Your task to perform on an android device: turn off location Image 0: 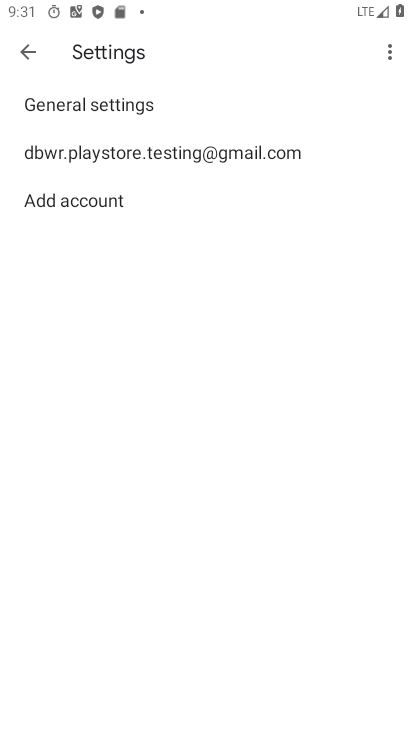
Step 0: press back button
Your task to perform on an android device: turn off location Image 1: 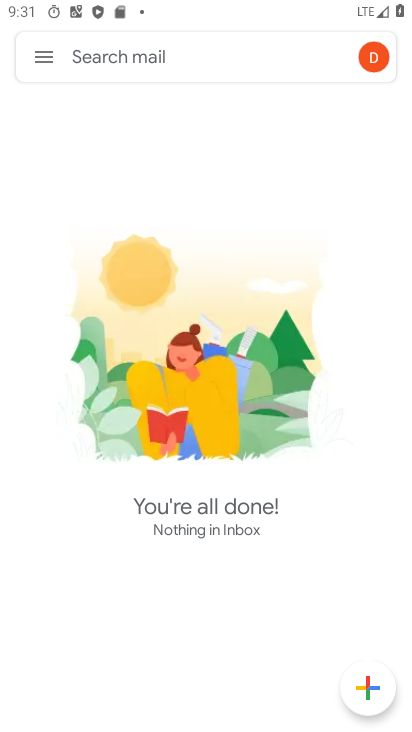
Step 1: press back button
Your task to perform on an android device: turn off location Image 2: 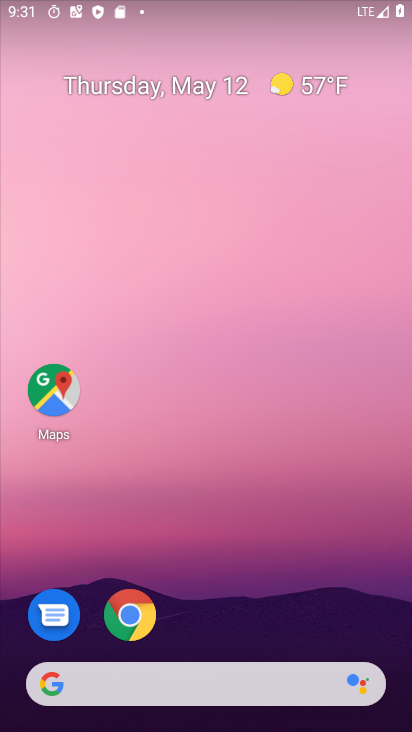
Step 2: drag from (202, 604) to (184, 6)
Your task to perform on an android device: turn off location Image 3: 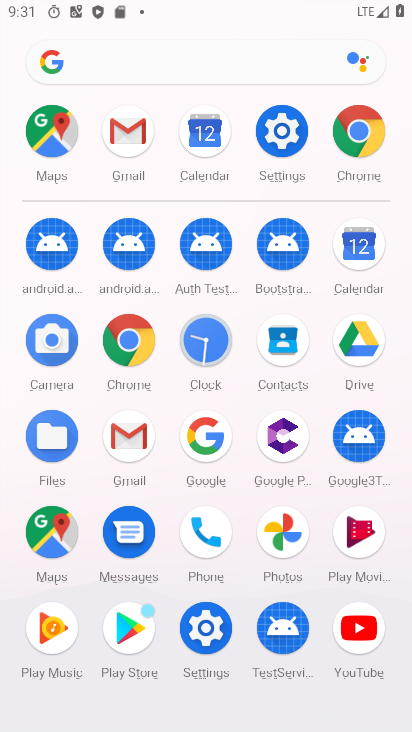
Step 3: drag from (6, 566) to (18, 304)
Your task to perform on an android device: turn off location Image 4: 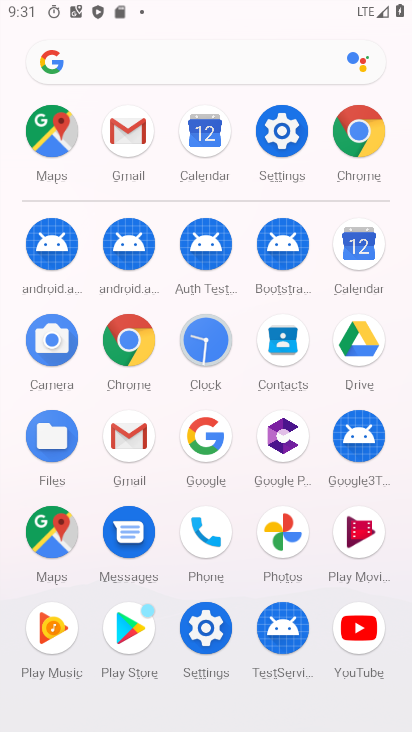
Step 4: click (203, 626)
Your task to perform on an android device: turn off location Image 5: 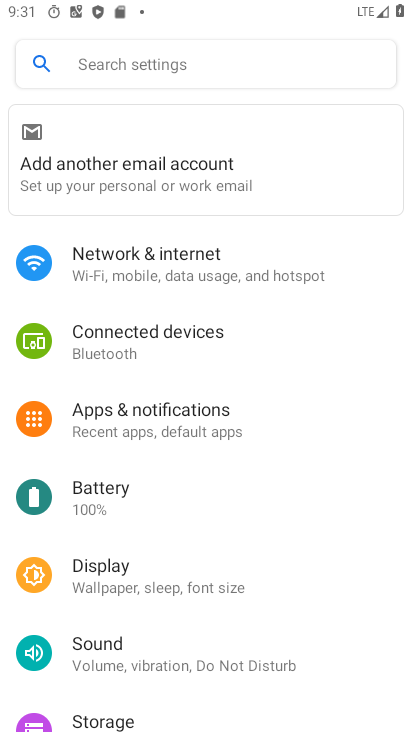
Step 5: drag from (276, 596) to (279, 210)
Your task to perform on an android device: turn off location Image 6: 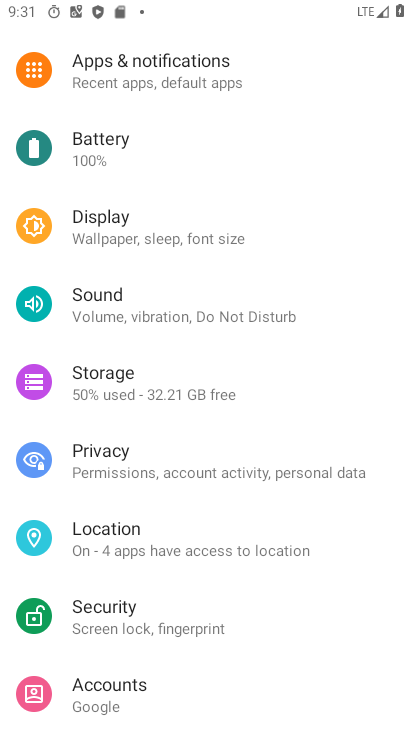
Step 6: click (170, 528)
Your task to perform on an android device: turn off location Image 7: 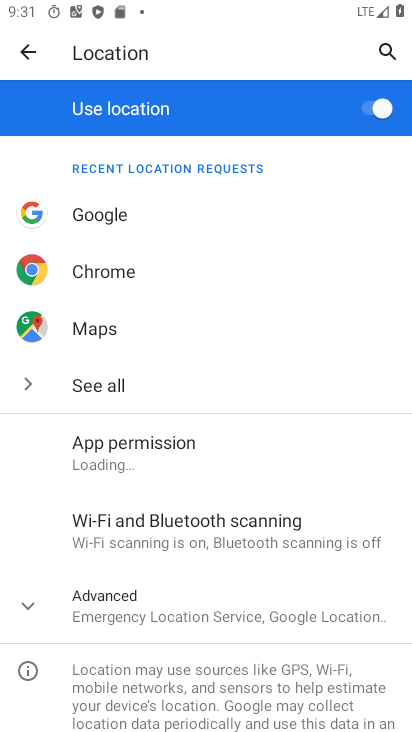
Step 7: click (16, 620)
Your task to perform on an android device: turn off location Image 8: 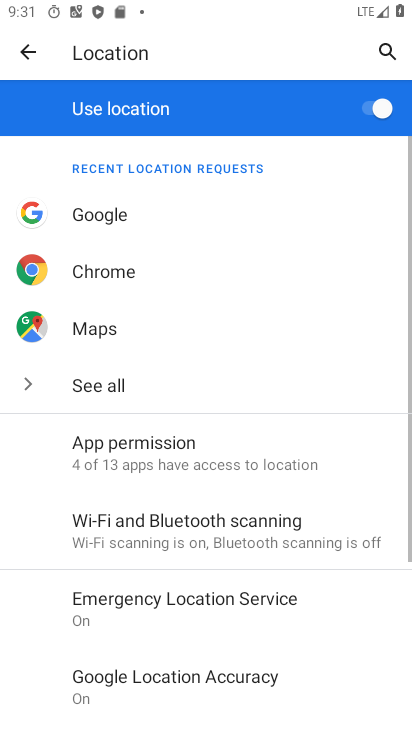
Step 8: drag from (273, 611) to (290, 244)
Your task to perform on an android device: turn off location Image 9: 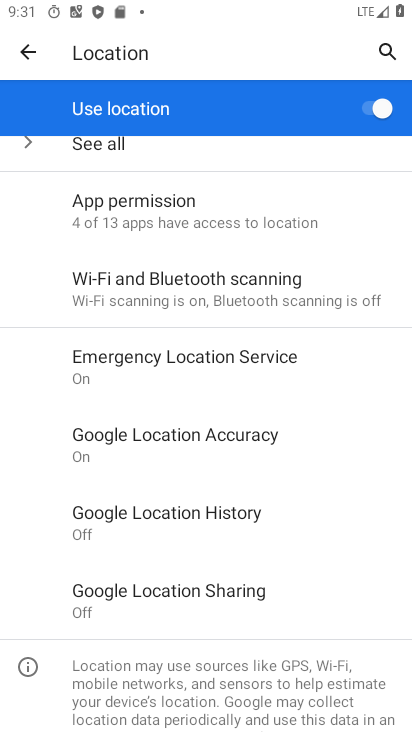
Step 9: click (368, 98)
Your task to perform on an android device: turn off location Image 10: 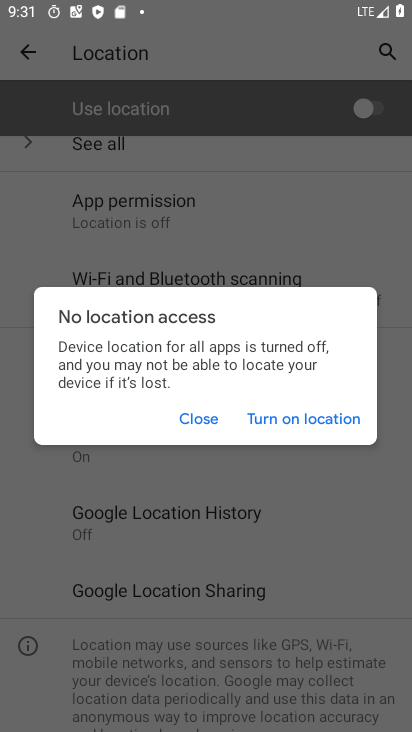
Step 10: click (197, 416)
Your task to perform on an android device: turn off location Image 11: 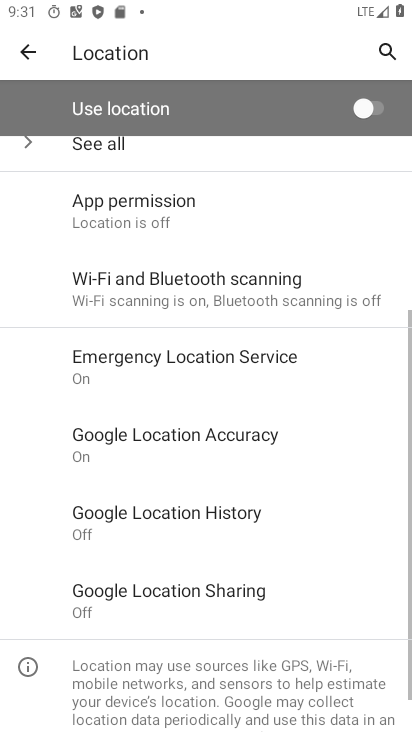
Step 11: task complete